Your task to perform on an android device: Open the web browser Image 0: 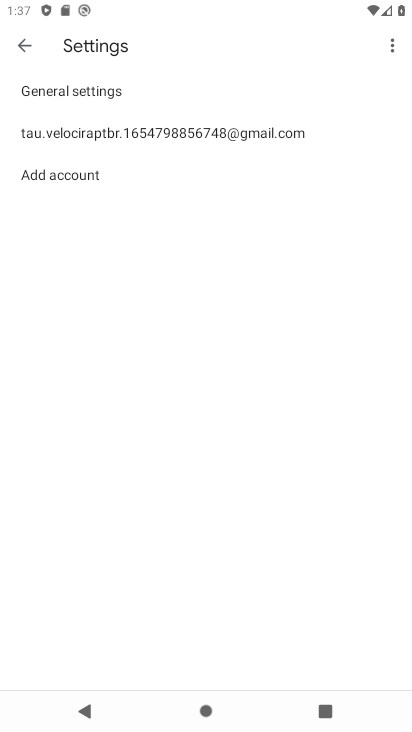
Step 0: press home button
Your task to perform on an android device: Open the web browser Image 1: 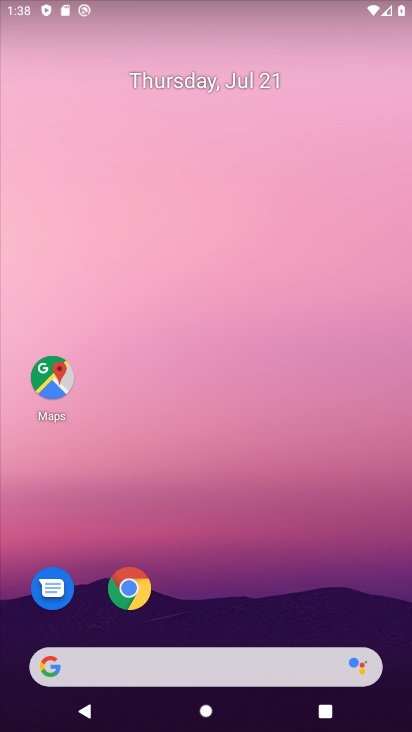
Step 1: click (133, 593)
Your task to perform on an android device: Open the web browser Image 2: 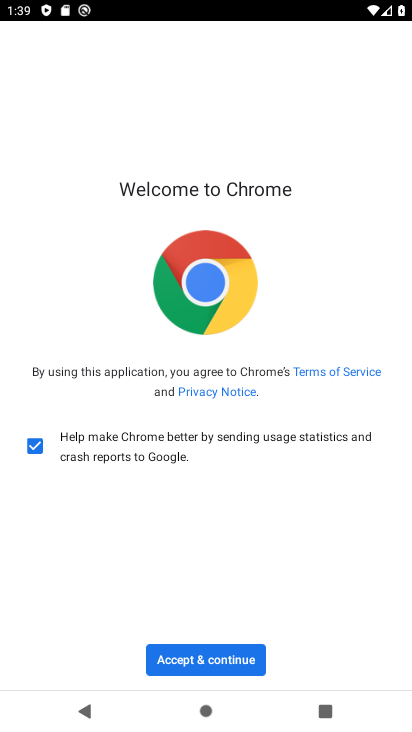
Step 2: click (236, 652)
Your task to perform on an android device: Open the web browser Image 3: 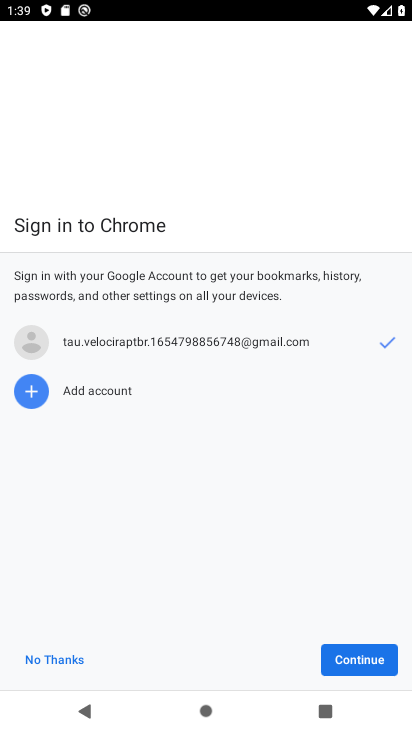
Step 3: click (343, 655)
Your task to perform on an android device: Open the web browser Image 4: 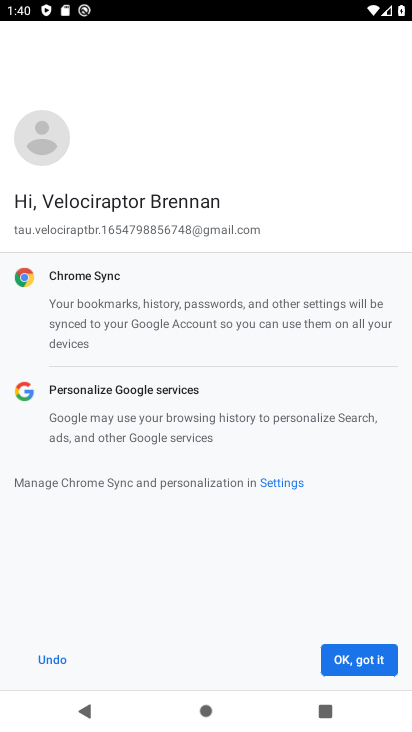
Step 4: click (341, 653)
Your task to perform on an android device: Open the web browser Image 5: 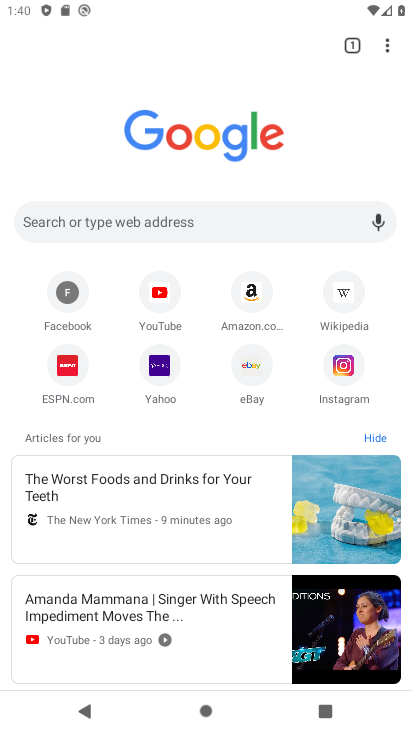
Step 5: task complete